Your task to perform on an android device: Go to settings Image 0: 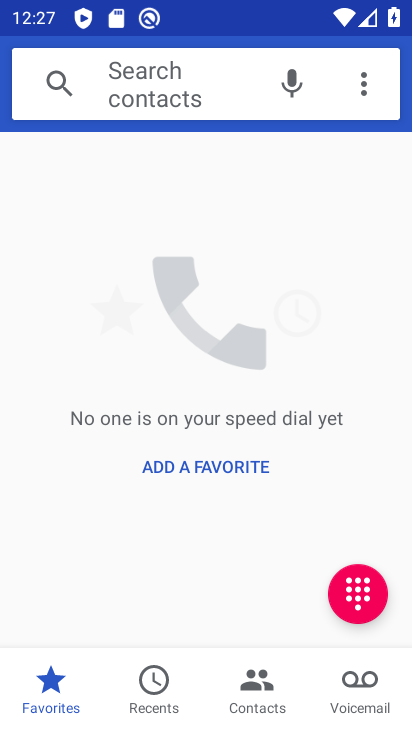
Step 0: press home button
Your task to perform on an android device: Go to settings Image 1: 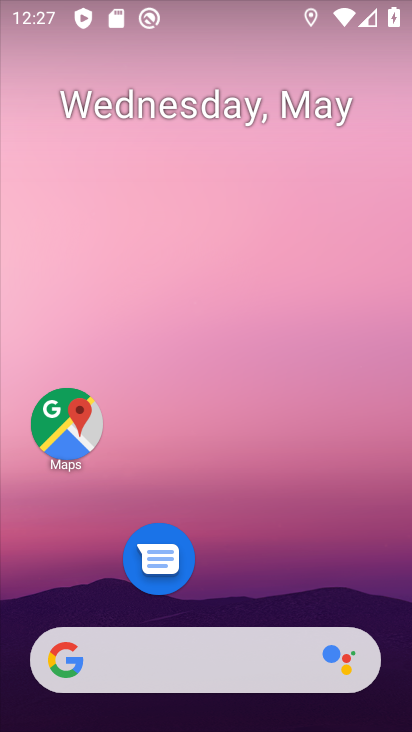
Step 1: drag from (211, 570) to (174, 138)
Your task to perform on an android device: Go to settings Image 2: 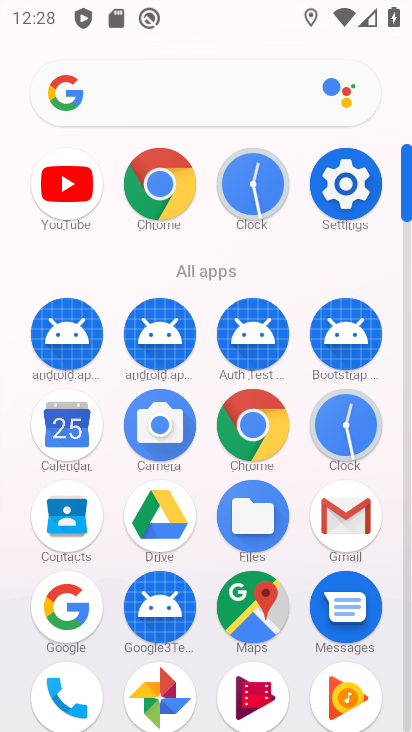
Step 2: click (383, 141)
Your task to perform on an android device: Go to settings Image 3: 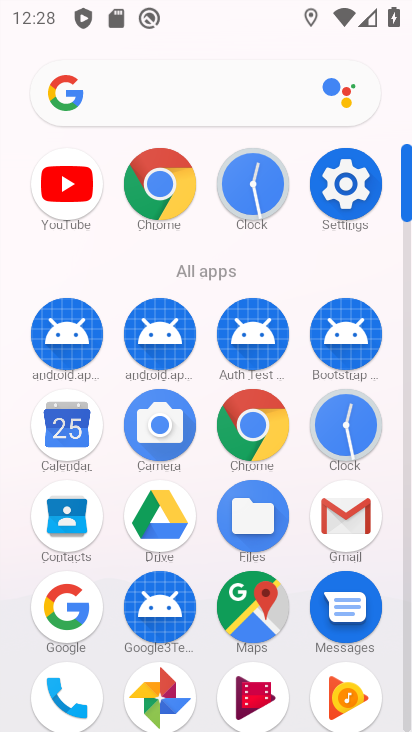
Step 3: click (371, 159)
Your task to perform on an android device: Go to settings Image 4: 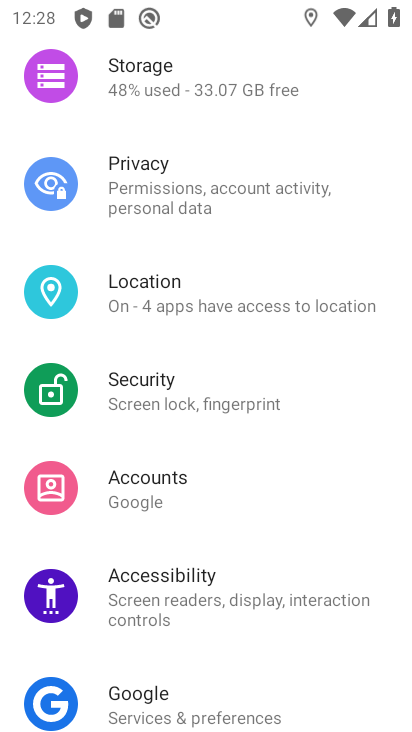
Step 4: task complete